Your task to perform on an android device: star an email in the gmail app Image 0: 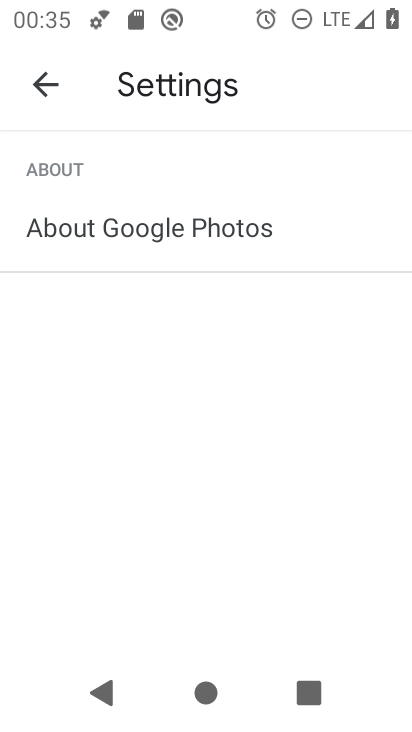
Step 0: press home button
Your task to perform on an android device: star an email in the gmail app Image 1: 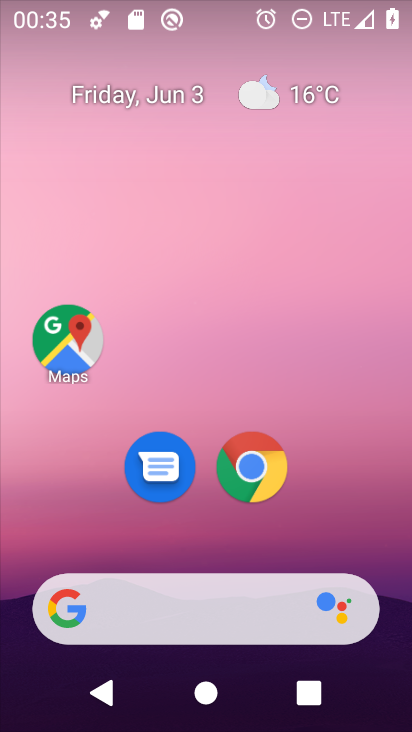
Step 1: drag from (393, 598) to (344, 85)
Your task to perform on an android device: star an email in the gmail app Image 2: 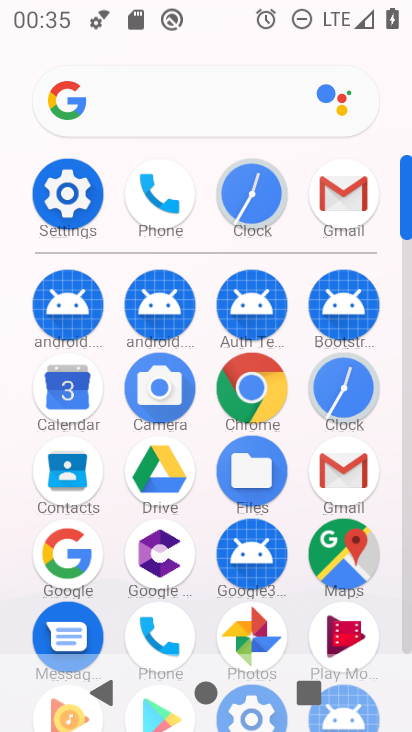
Step 2: click (343, 473)
Your task to perform on an android device: star an email in the gmail app Image 3: 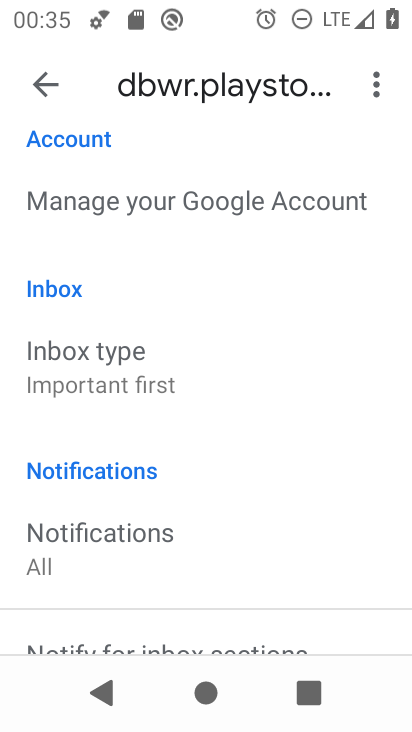
Step 3: press back button
Your task to perform on an android device: star an email in the gmail app Image 4: 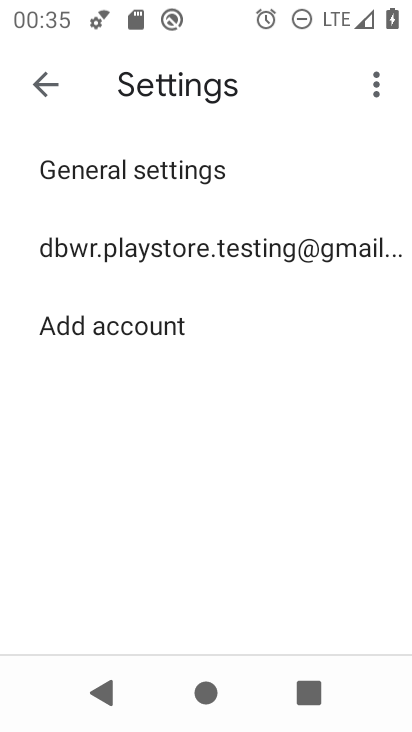
Step 4: press back button
Your task to perform on an android device: star an email in the gmail app Image 5: 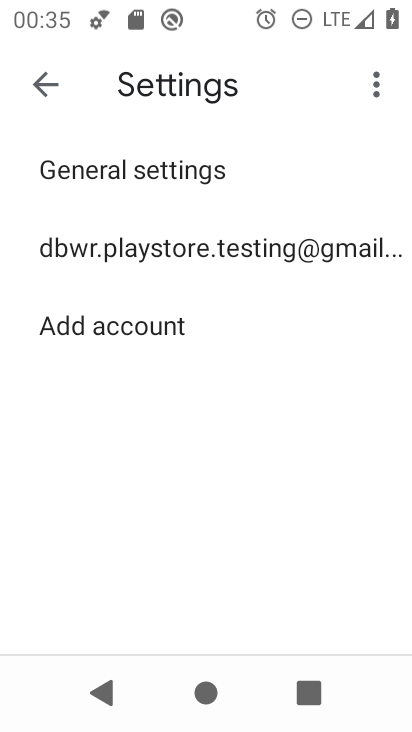
Step 5: press back button
Your task to perform on an android device: star an email in the gmail app Image 6: 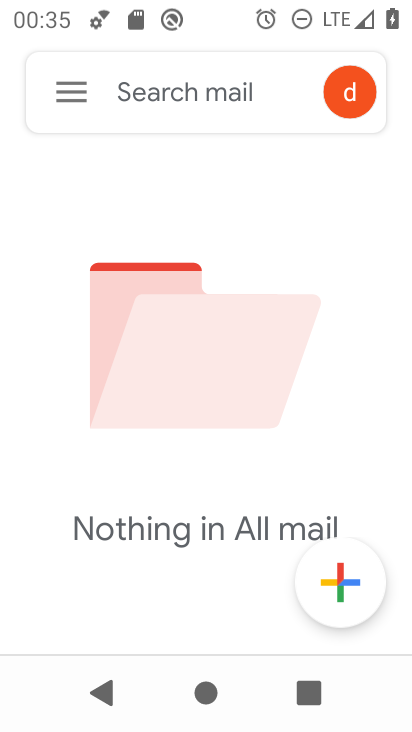
Step 6: click (67, 93)
Your task to perform on an android device: star an email in the gmail app Image 7: 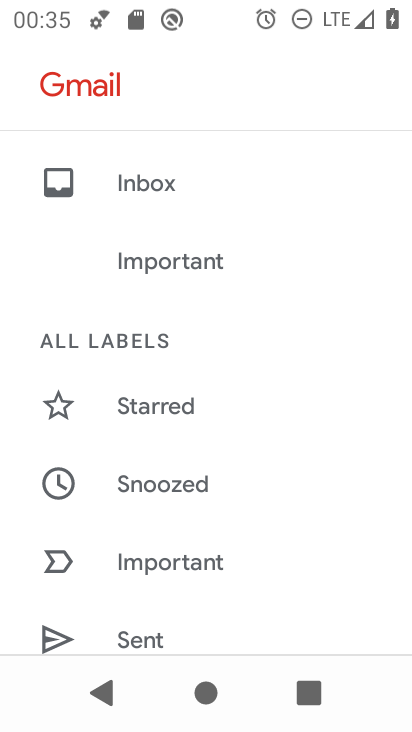
Step 7: drag from (229, 467) to (285, 205)
Your task to perform on an android device: star an email in the gmail app Image 8: 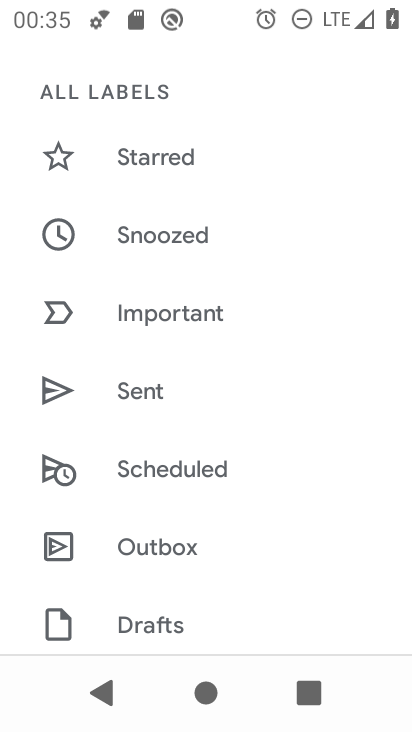
Step 8: drag from (261, 578) to (280, 186)
Your task to perform on an android device: star an email in the gmail app Image 9: 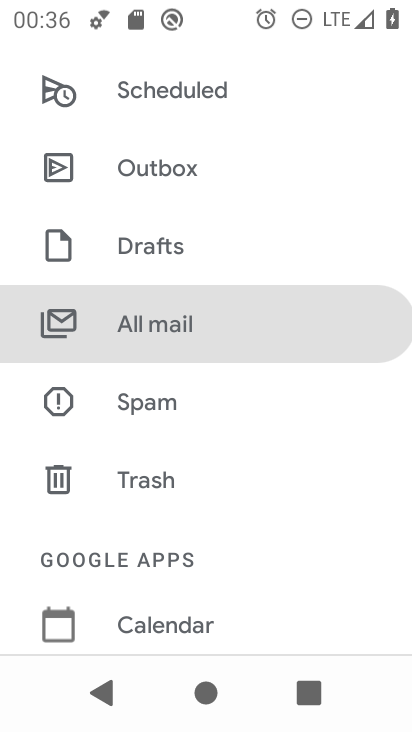
Step 9: click (157, 321)
Your task to perform on an android device: star an email in the gmail app Image 10: 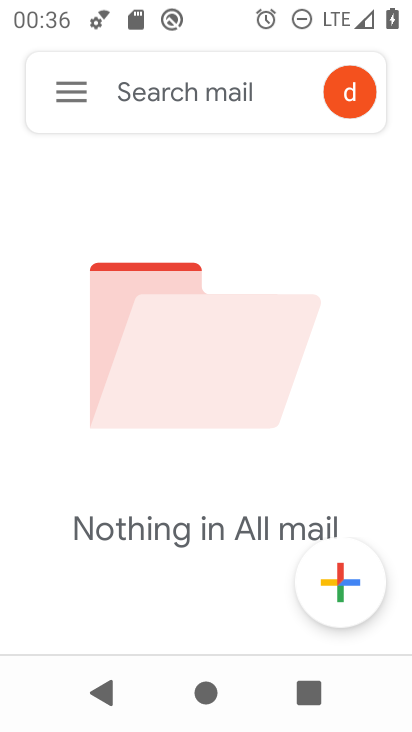
Step 10: task complete